Your task to perform on an android device: turn on location history Image 0: 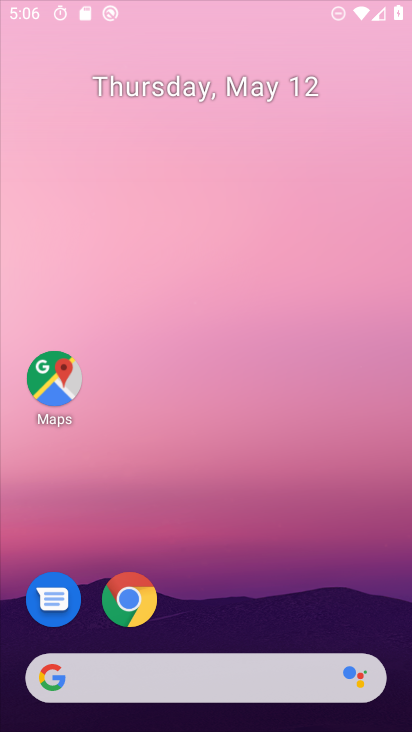
Step 0: click (337, 273)
Your task to perform on an android device: turn on location history Image 1: 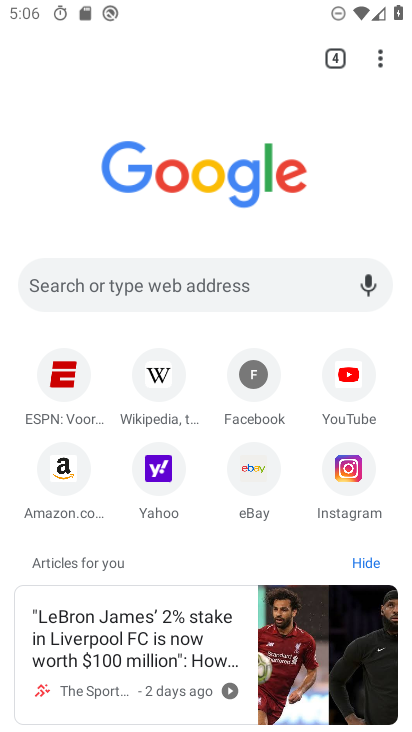
Step 1: drag from (168, 643) to (217, 401)
Your task to perform on an android device: turn on location history Image 2: 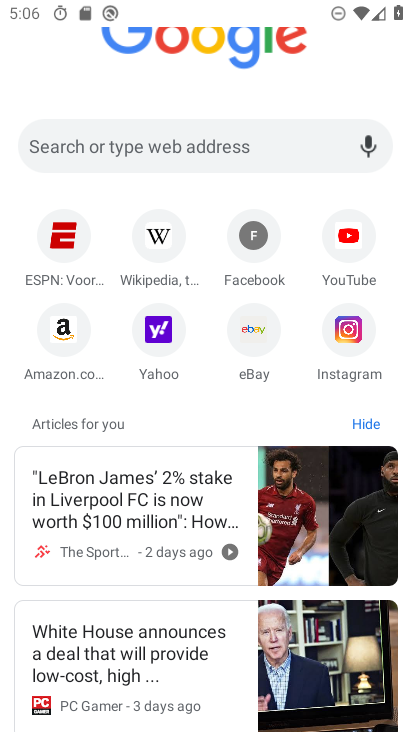
Step 2: drag from (247, 95) to (277, 425)
Your task to perform on an android device: turn on location history Image 3: 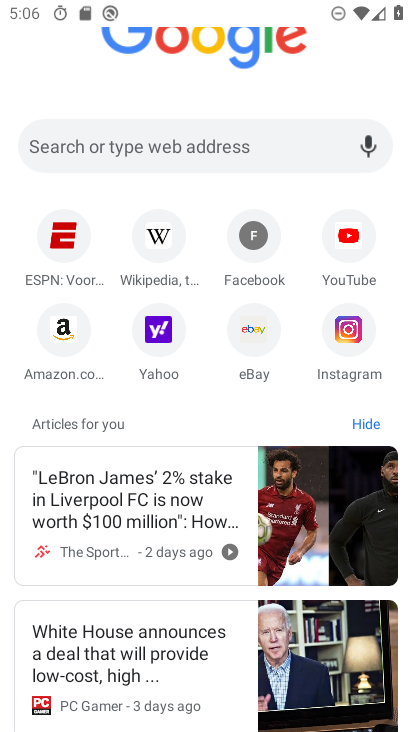
Step 3: drag from (247, 94) to (260, 418)
Your task to perform on an android device: turn on location history Image 4: 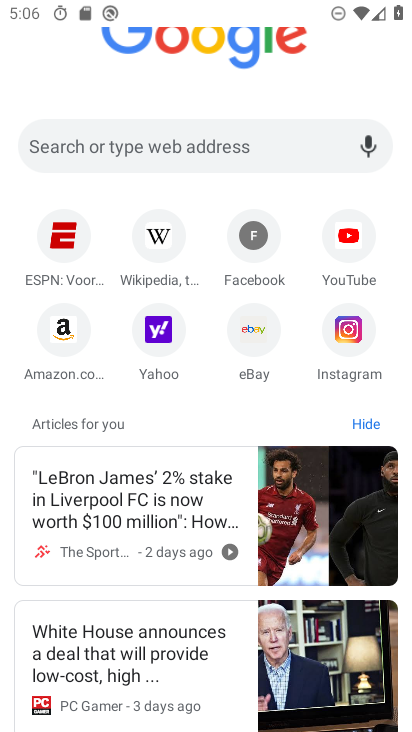
Step 4: drag from (308, 77) to (258, 486)
Your task to perform on an android device: turn on location history Image 5: 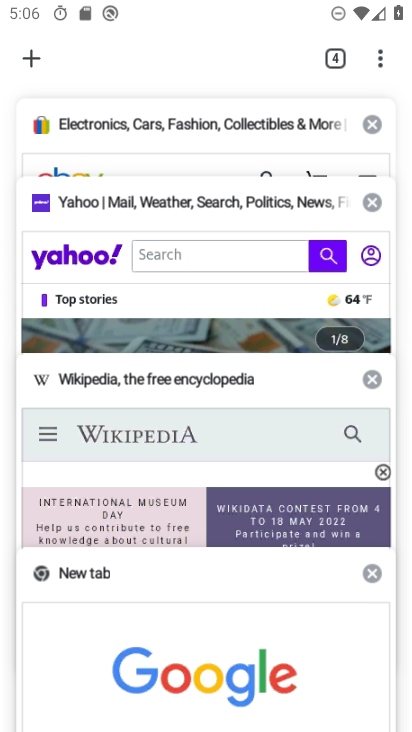
Step 5: click (376, 54)
Your task to perform on an android device: turn on location history Image 6: 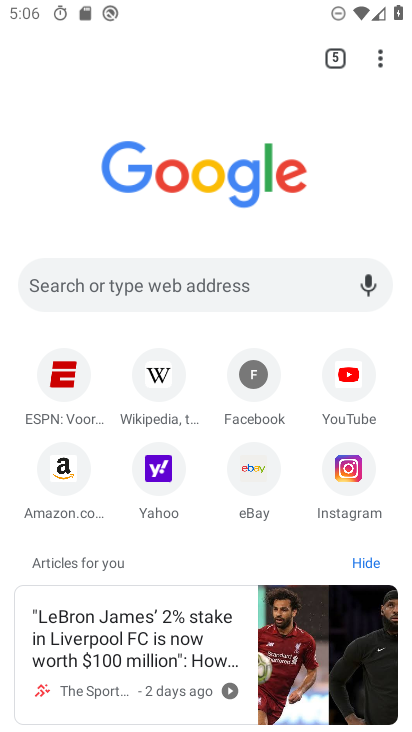
Step 6: press home button
Your task to perform on an android device: turn on location history Image 7: 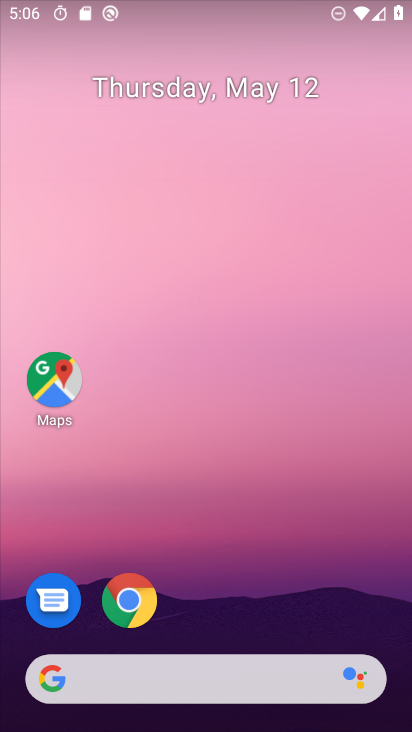
Step 7: drag from (207, 618) to (223, 85)
Your task to perform on an android device: turn on location history Image 8: 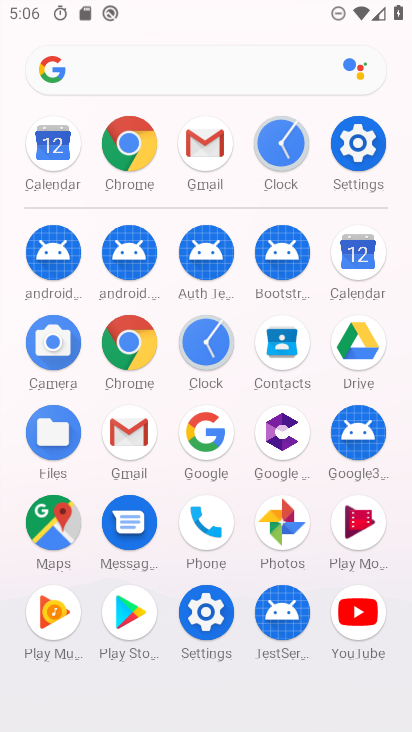
Step 8: click (363, 152)
Your task to perform on an android device: turn on location history Image 9: 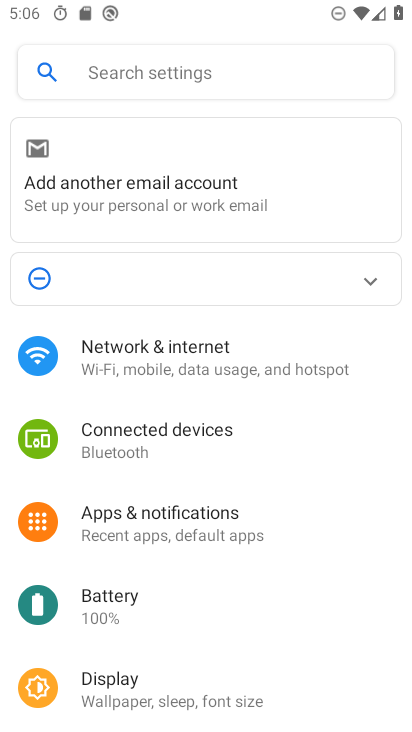
Step 9: drag from (199, 584) to (245, 160)
Your task to perform on an android device: turn on location history Image 10: 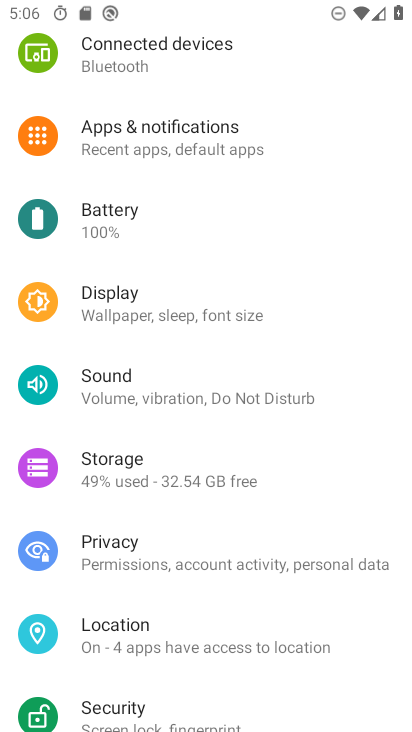
Step 10: click (132, 620)
Your task to perform on an android device: turn on location history Image 11: 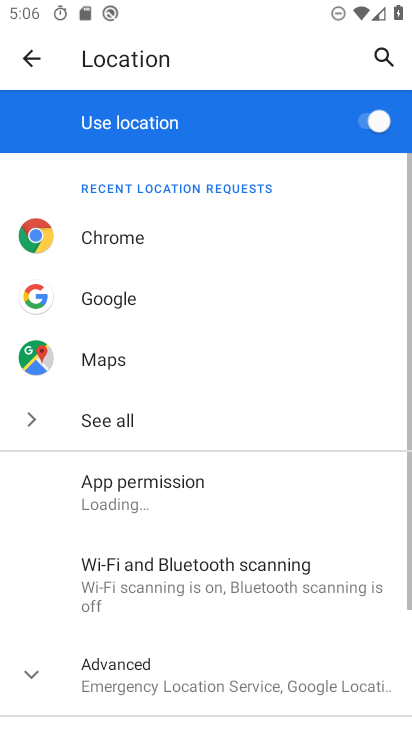
Step 11: drag from (180, 600) to (246, 236)
Your task to perform on an android device: turn on location history Image 12: 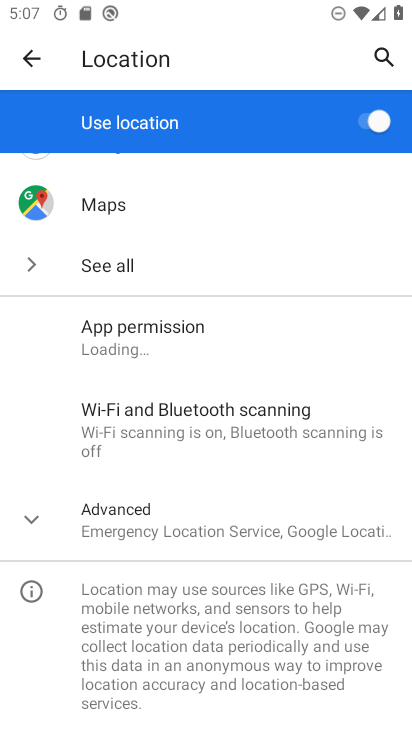
Step 12: click (109, 503)
Your task to perform on an android device: turn on location history Image 13: 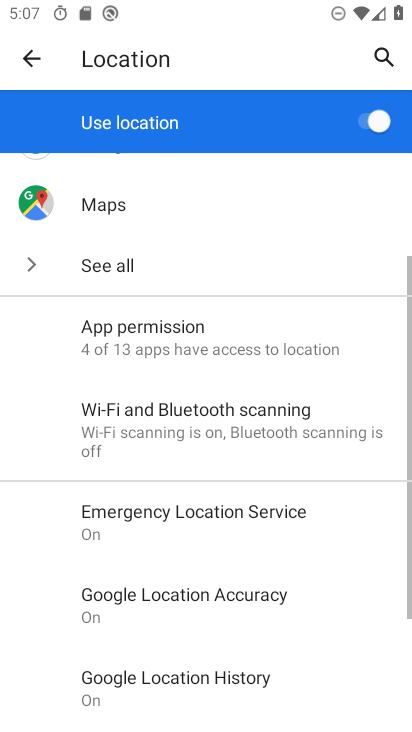
Step 13: drag from (189, 605) to (242, 236)
Your task to perform on an android device: turn on location history Image 14: 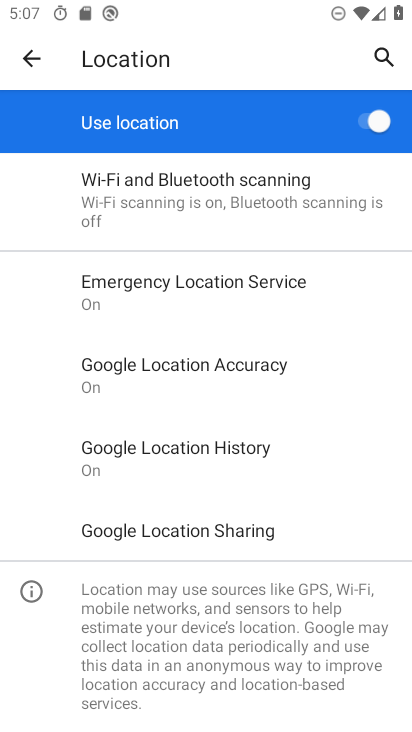
Step 14: click (188, 430)
Your task to perform on an android device: turn on location history Image 15: 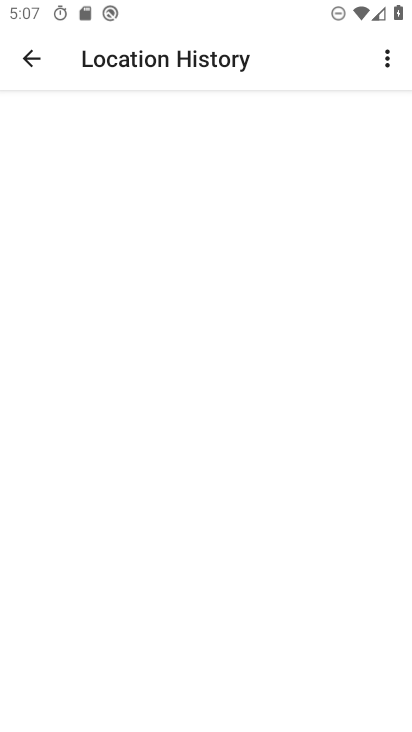
Step 15: task complete